Your task to perform on an android device: add a label to a message in the gmail app Image 0: 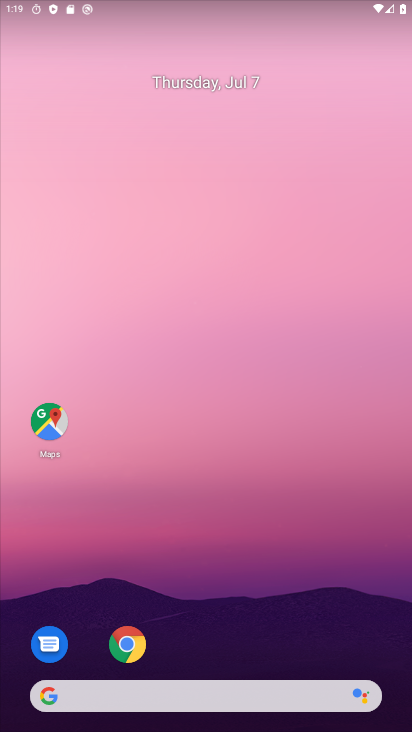
Step 0: click (230, 653)
Your task to perform on an android device: add a label to a message in the gmail app Image 1: 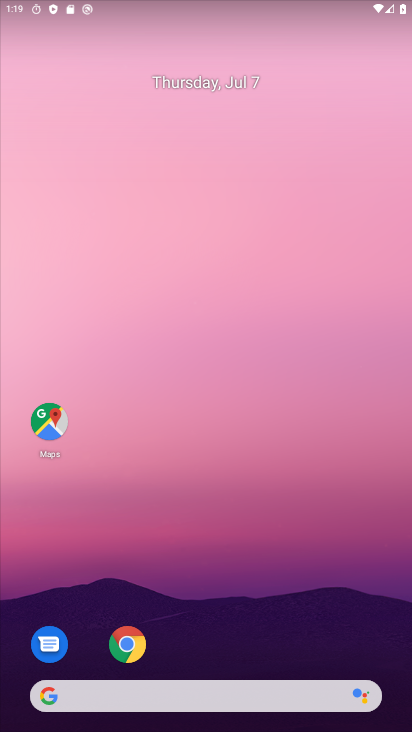
Step 1: drag from (230, 331) to (230, 70)
Your task to perform on an android device: add a label to a message in the gmail app Image 2: 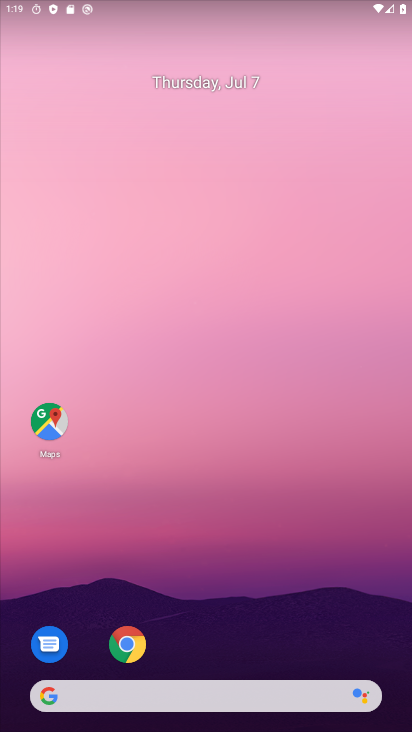
Step 2: drag from (202, 712) to (193, 4)
Your task to perform on an android device: add a label to a message in the gmail app Image 3: 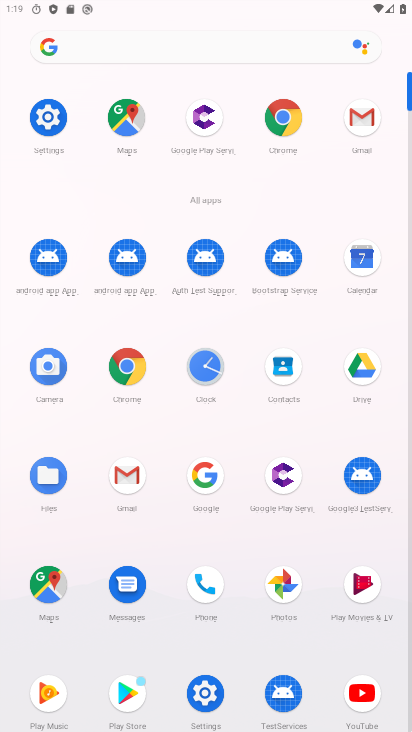
Step 3: click (127, 469)
Your task to perform on an android device: add a label to a message in the gmail app Image 4: 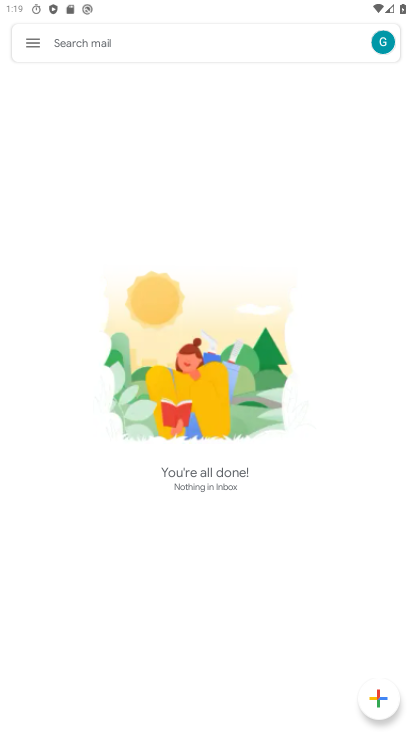
Step 4: task complete